Your task to perform on an android device: create a new album in the google photos Image 0: 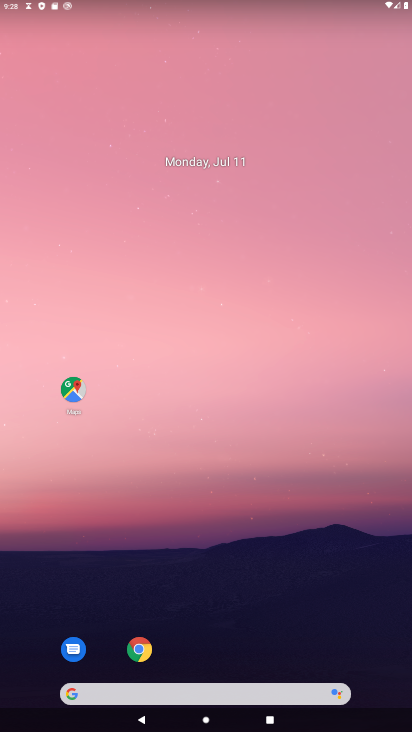
Step 0: drag from (211, 653) to (241, 35)
Your task to perform on an android device: create a new album in the google photos Image 1: 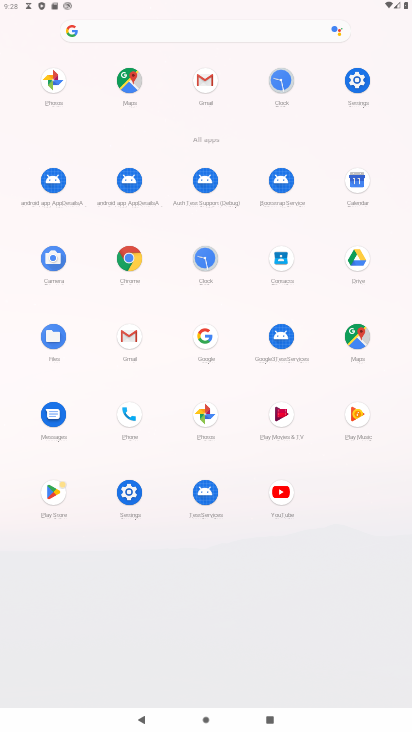
Step 1: click (208, 412)
Your task to perform on an android device: create a new album in the google photos Image 2: 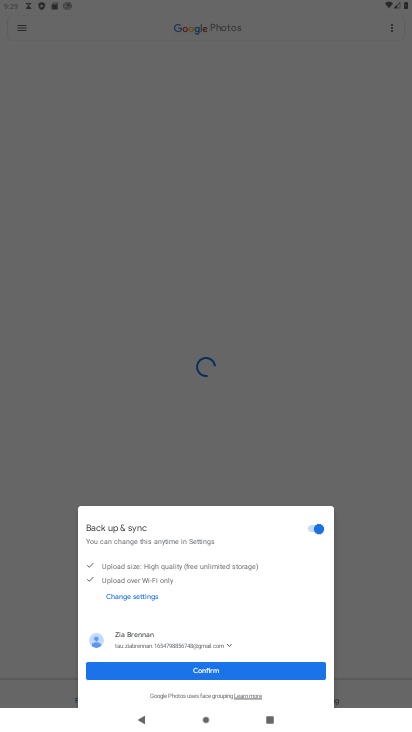
Step 2: click (232, 669)
Your task to perform on an android device: create a new album in the google photos Image 3: 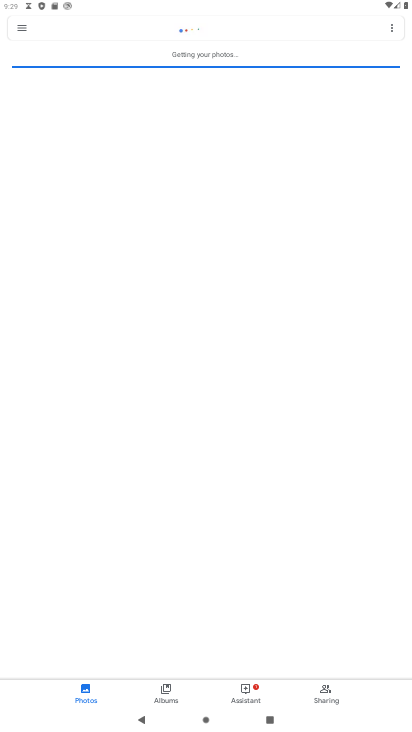
Step 3: click (166, 690)
Your task to perform on an android device: create a new album in the google photos Image 4: 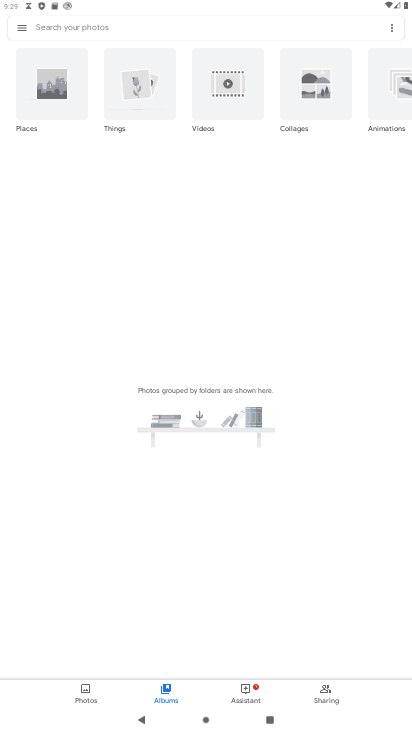
Step 4: task complete